Your task to perform on an android device: What is the news today? Image 0: 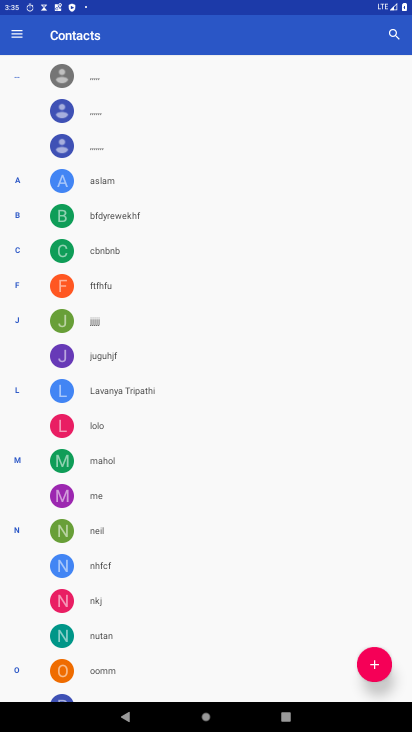
Step 0: press home button
Your task to perform on an android device: What is the news today? Image 1: 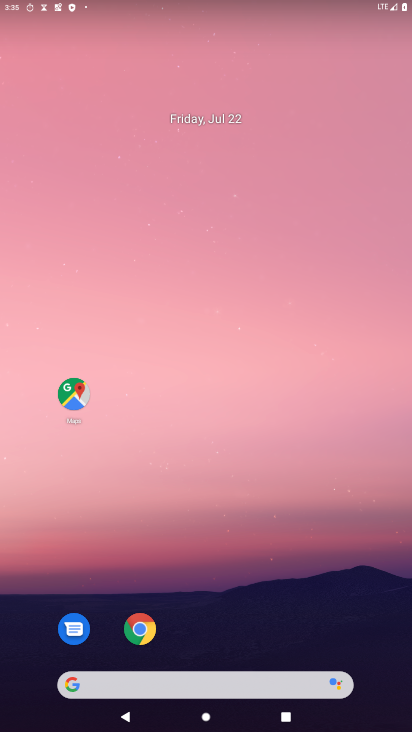
Step 1: drag from (156, 582) to (190, 0)
Your task to perform on an android device: What is the news today? Image 2: 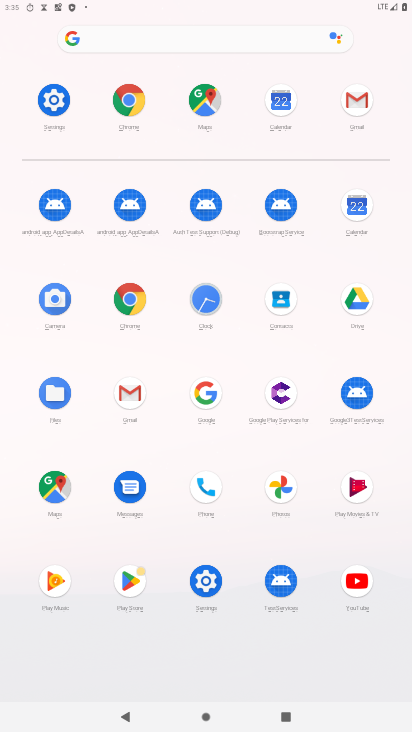
Step 2: click (137, 308)
Your task to perform on an android device: What is the news today? Image 3: 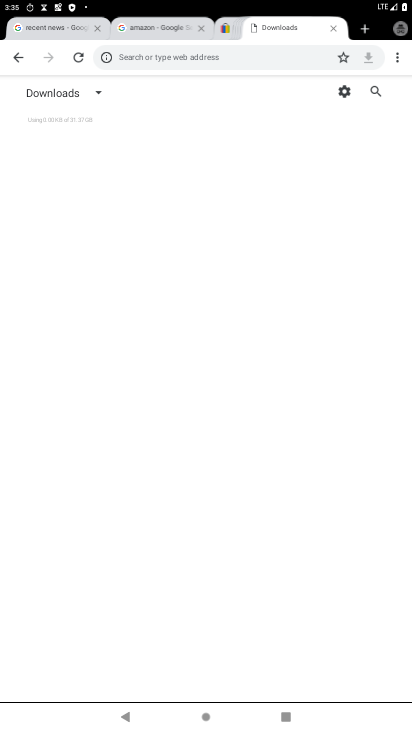
Step 3: click (221, 62)
Your task to perform on an android device: What is the news today? Image 4: 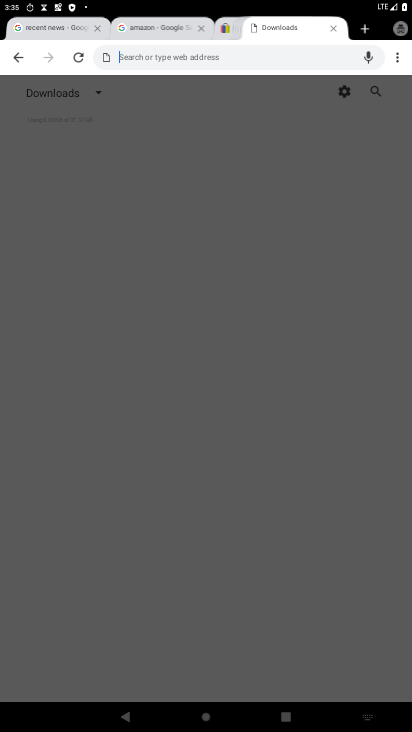
Step 4: type "news today"
Your task to perform on an android device: What is the news today? Image 5: 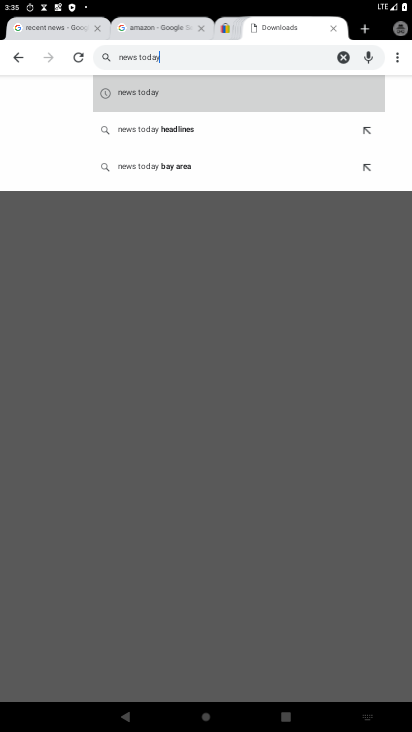
Step 5: click (214, 104)
Your task to perform on an android device: What is the news today? Image 6: 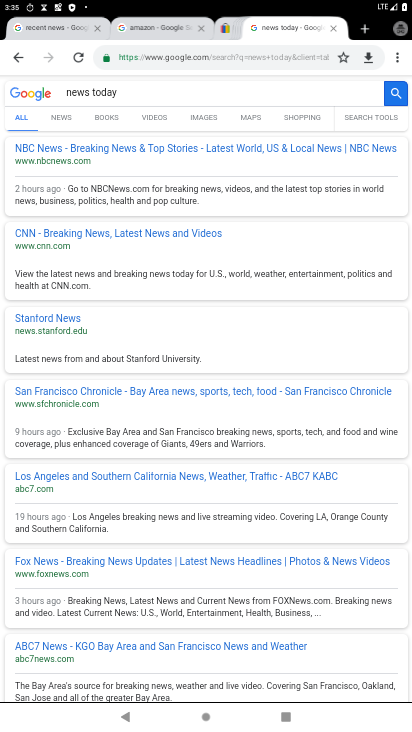
Step 6: task complete